Your task to perform on an android device: open a new tab in the chrome app Image 0: 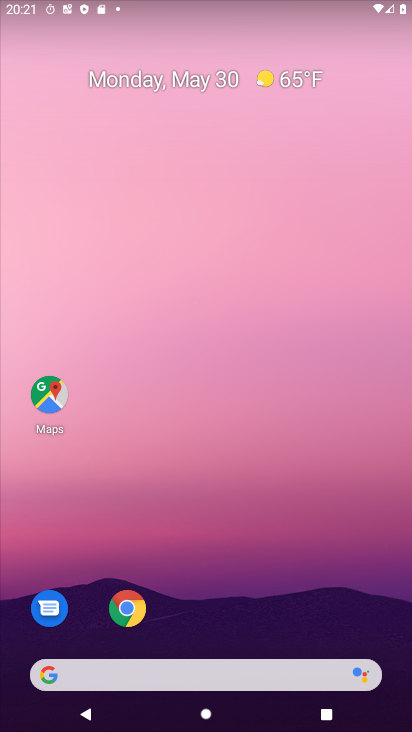
Step 0: click (132, 605)
Your task to perform on an android device: open a new tab in the chrome app Image 1: 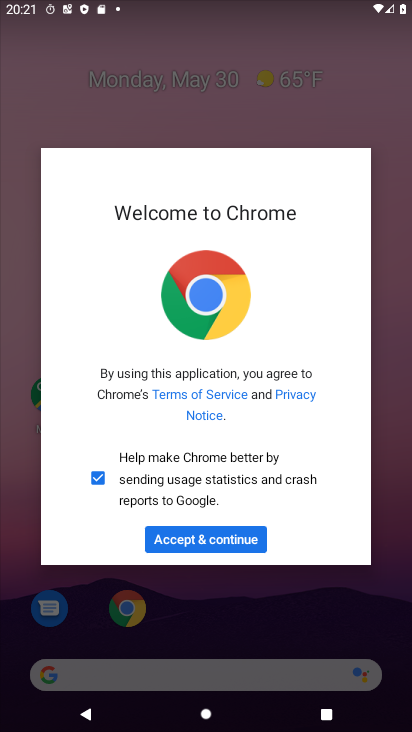
Step 1: click (177, 536)
Your task to perform on an android device: open a new tab in the chrome app Image 2: 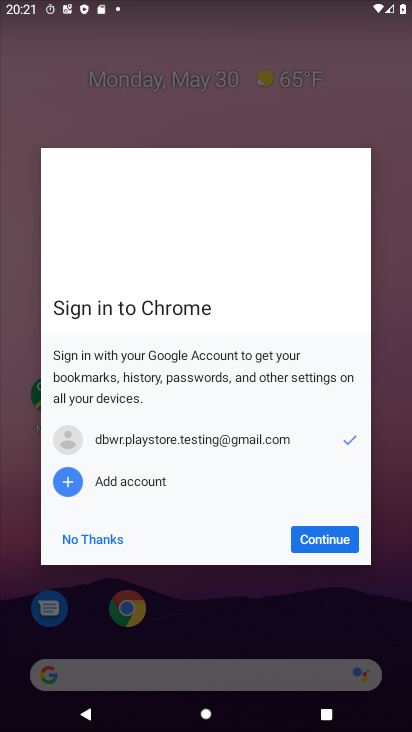
Step 2: click (313, 528)
Your task to perform on an android device: open a new tab in the chrome app Image 3: 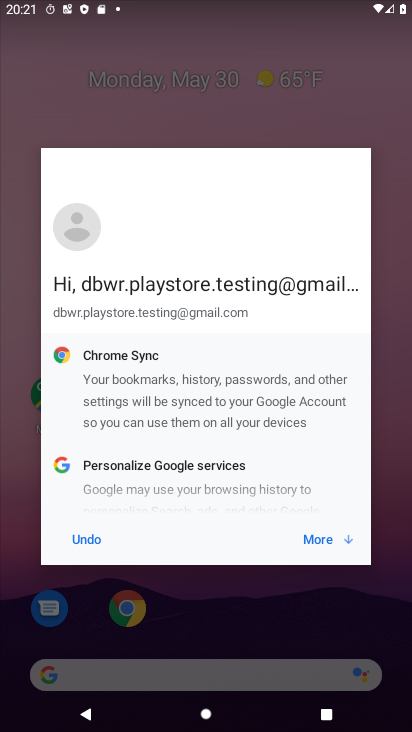
Step 3: click (301, 539)
Your task to perform on an android device: open a new tab in the chrome app Image 4: 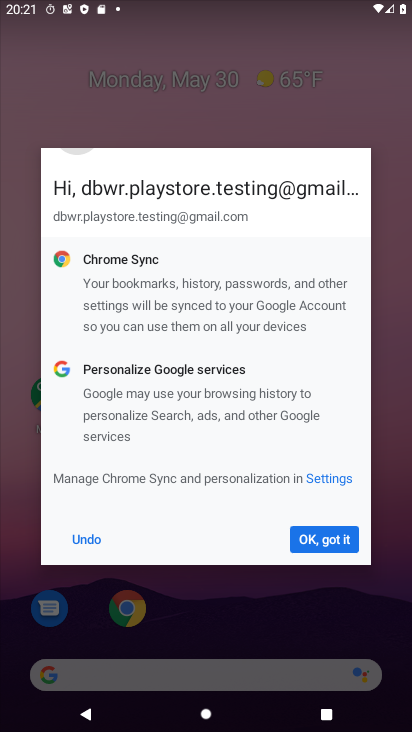
Step 4: click (299, 539)
Your task to perform on an android device: open a new tab in the chrome app Image 5: 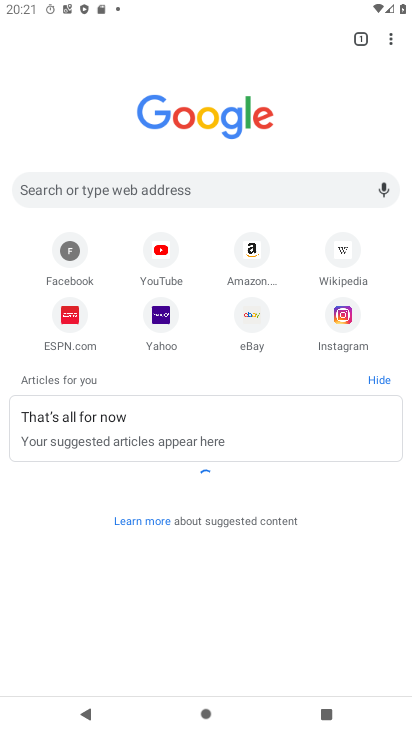
Step 5: click (353, 38)
Your task to perform on an android device: open a new tab in the chrome app Image 6: 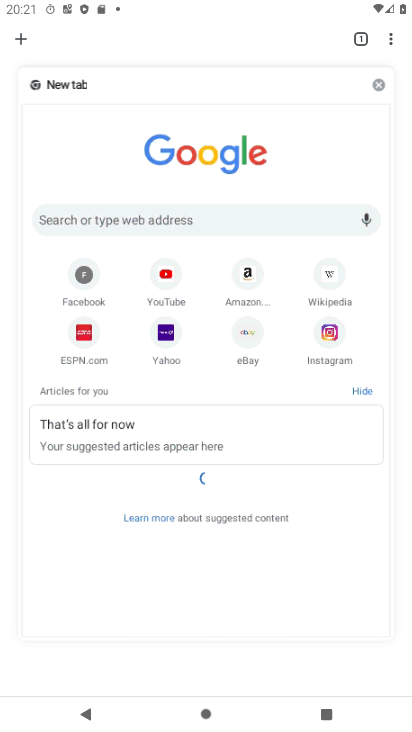
Step 6: click (26, 36)
Your task to perform on an android device: open a new tab in the chrome app Image 7: 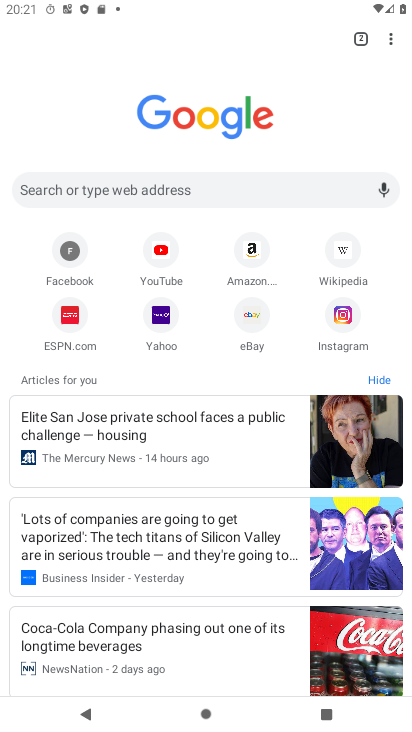
Step 7: task complete